Your task to perform on an android device: Turn off the flashlight Image 0: 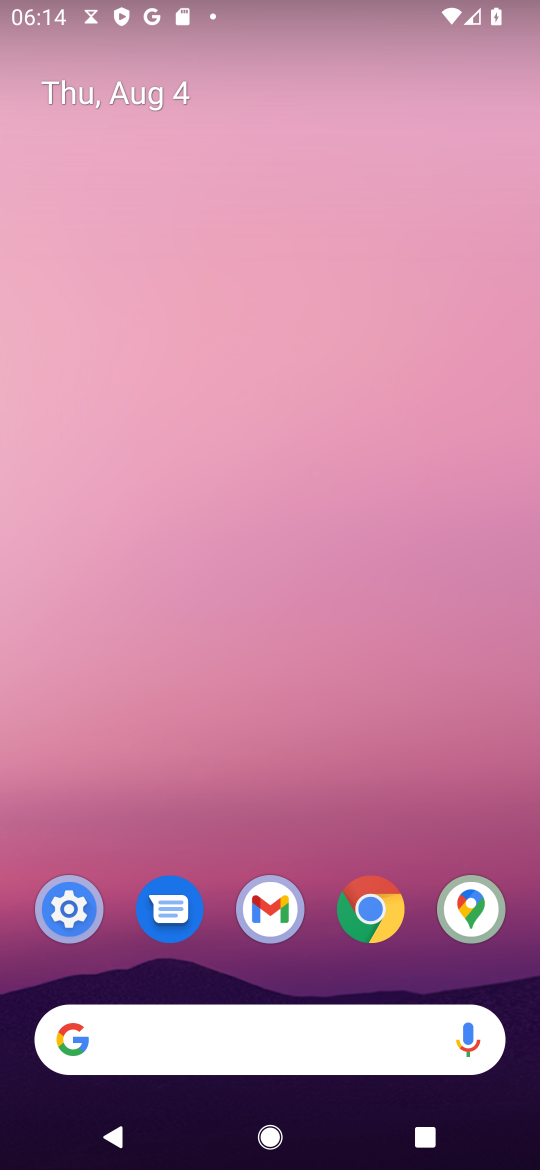
Step 0: drag from (200, 5) to (248, 772)
Your task to perform on an android device: Turn off the flashlight Image 1: 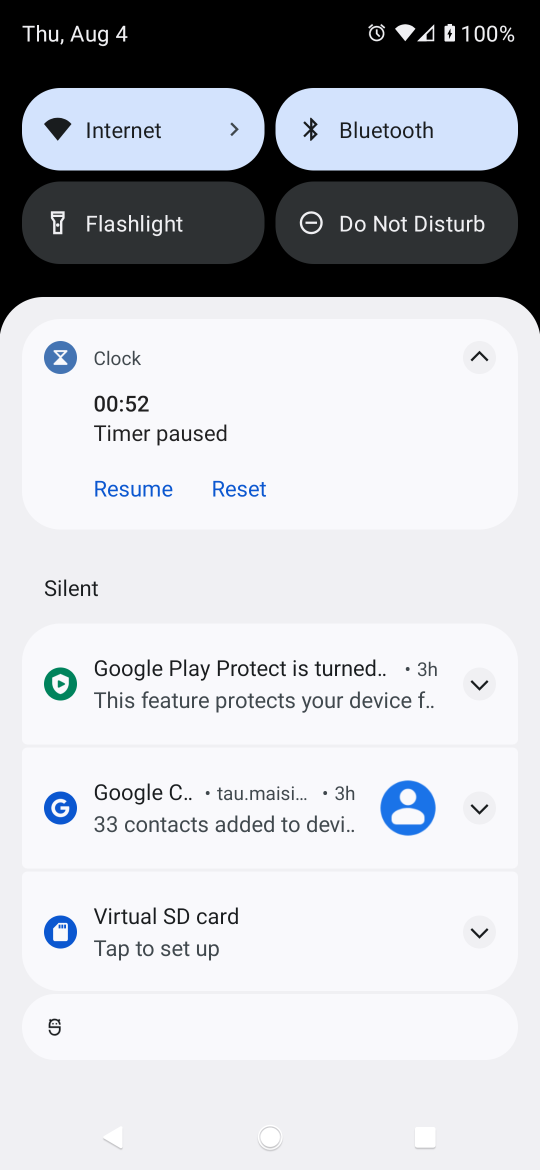
Step 1: task complete